Your task to perform on an android device: See recent photos Image 0: 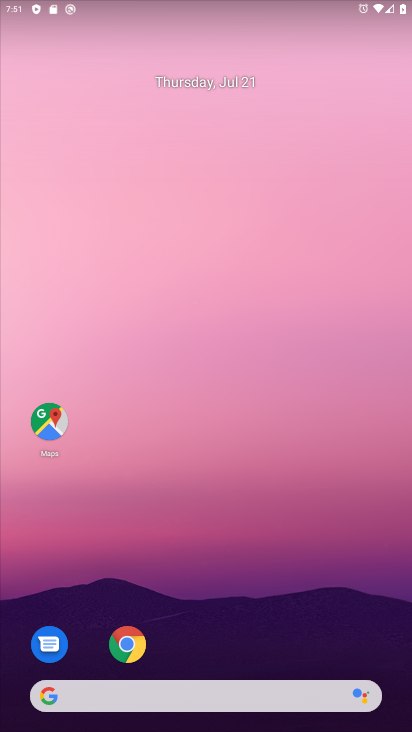
Step 0: drag from (367, 561) to (389, 61)
Your task to perform on an android device: See recent photos Image 1: 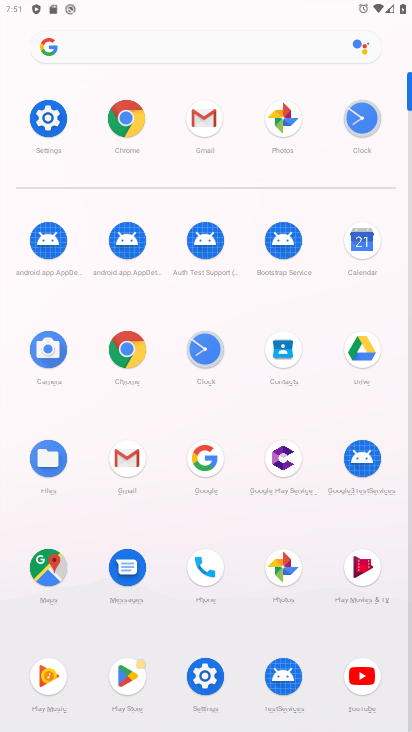
Step 1: click (279, 116)
Your task to perform on an android device: See recent photos Image 2: 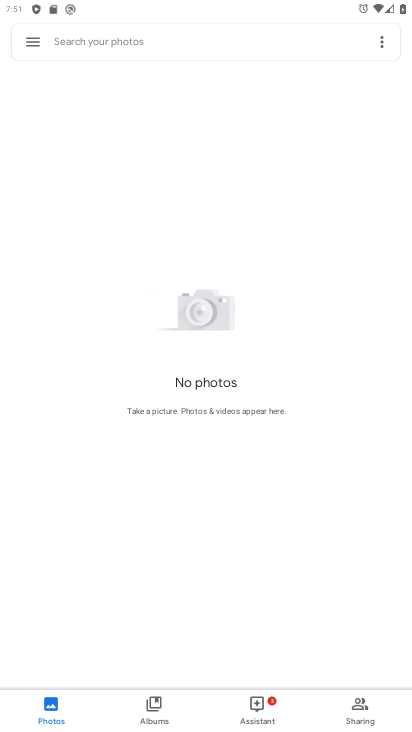
Step 2: task complete